Your task to perform on an android device: Open Google Image 0: 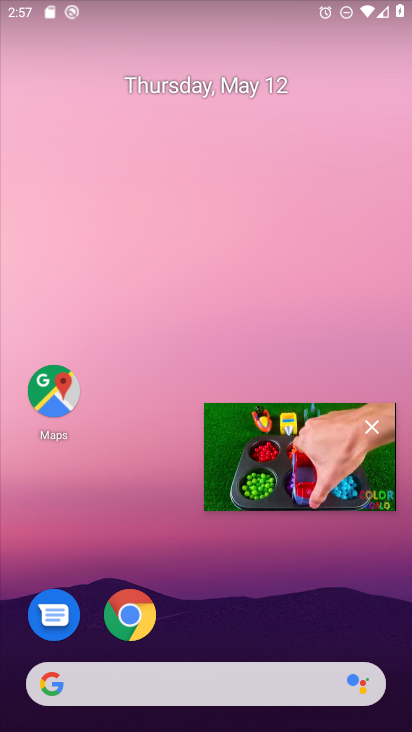
Step 0: click (373, 428)
Your task to perform on an android device: Open Google Image 1: 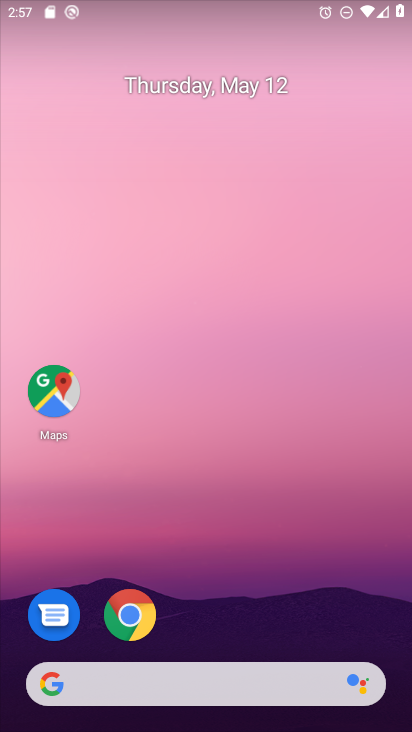
Step 1: drag from (304, 676) to (326, 12)
Your task to perform on an android device: Open Google Image 2: 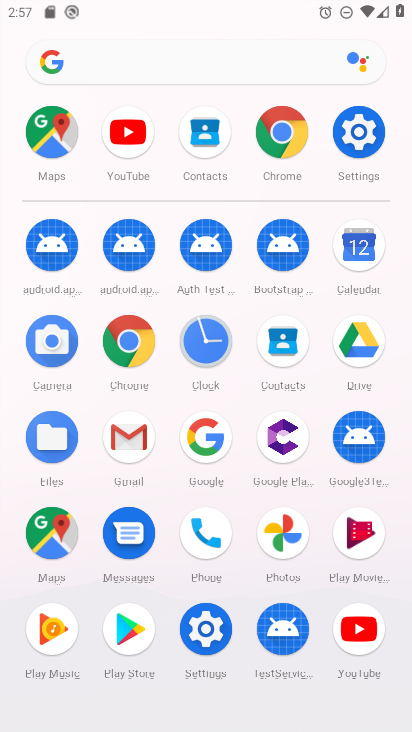
Step 2: click (131, 347)
Your task to perform on an android device: Open Google Image 3: 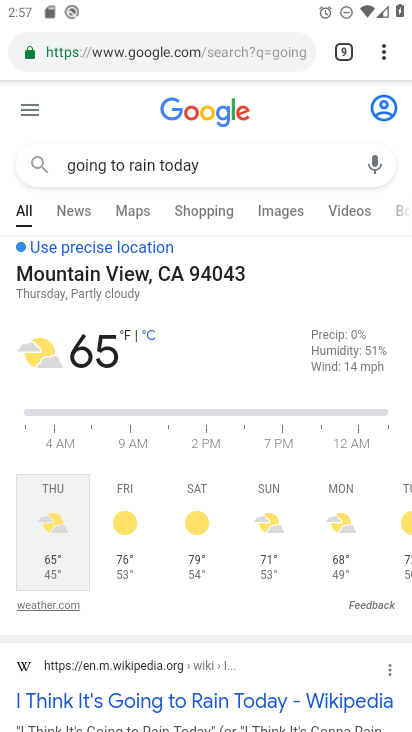
Step 3: task complete